Your task to perform on an android device: Go to Amazon Image 0: 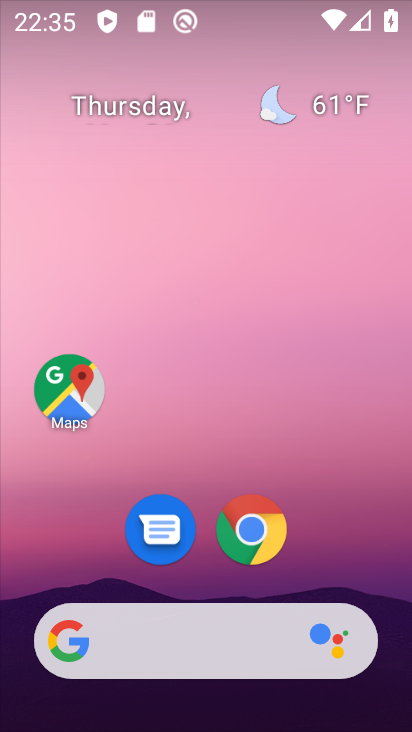
Step 0: click (242, 621)
Your task to perform on an android device: Go to Amazon Image 1: 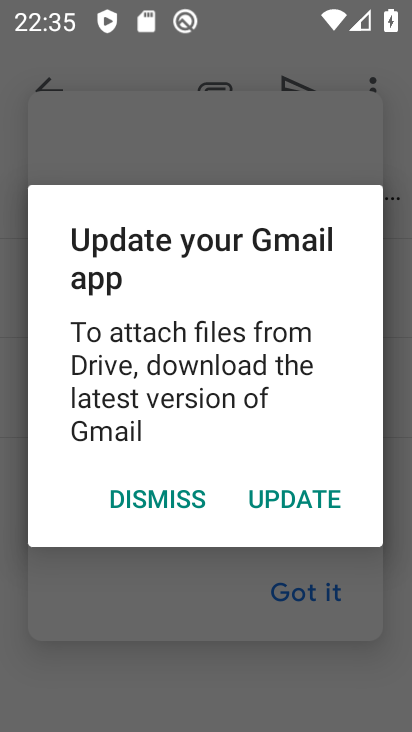
Step 1: click (190, 495)
Your task to perform on an android device: Go to Amazon Image 2: 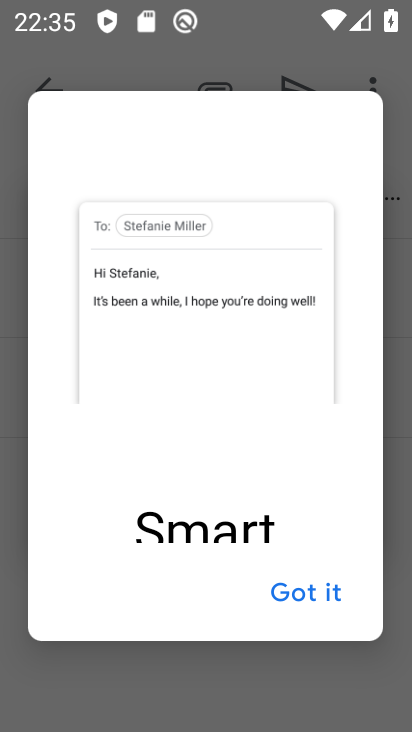
Step 2: click (307, 608)
Your task to perform on an android device: Go to Amazon Image 3: 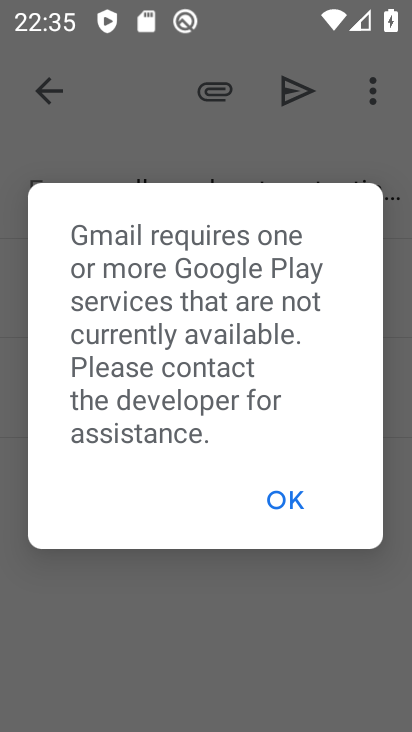
Step 3: click (283, 505)
Your task to perform on an android device: Go to Amazon Image 4: 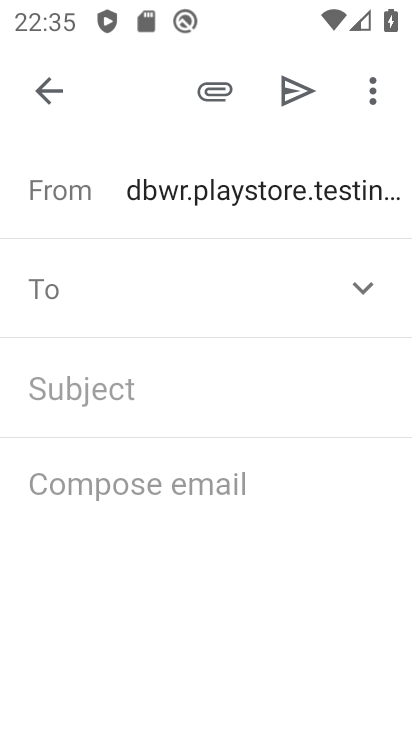
Step 4: press home button
Your task to perform on an android device: Go to Amazon Image 5: 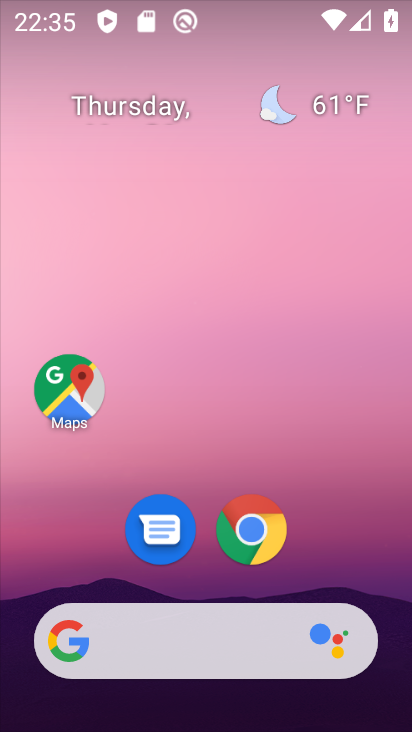
Step 5: click (198, 644)
Your task to perform on an android device: Go to Amazon Image 6: 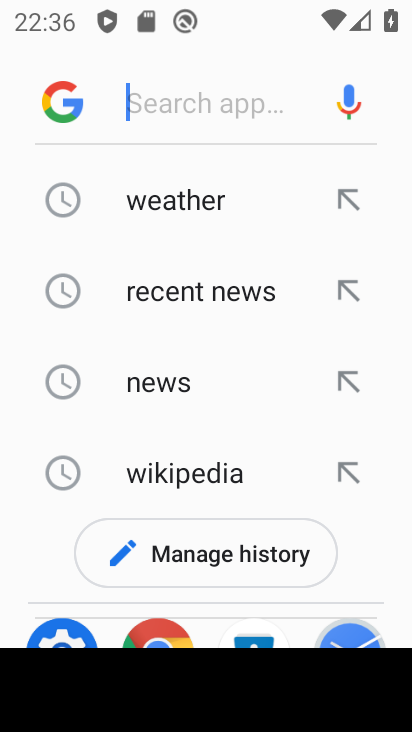
Step 6: type "amazon"
Your task to perform on an android device: Go to Amazon Image 7: 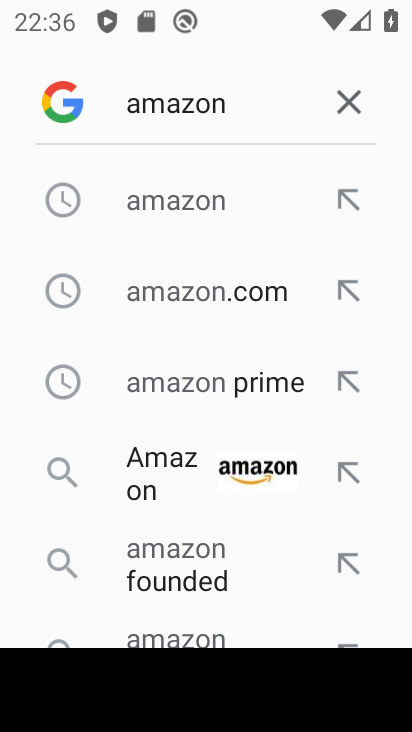
Step 7: click (176, 196)
Your task to perform on an android device: Go to Amazon Image 8: 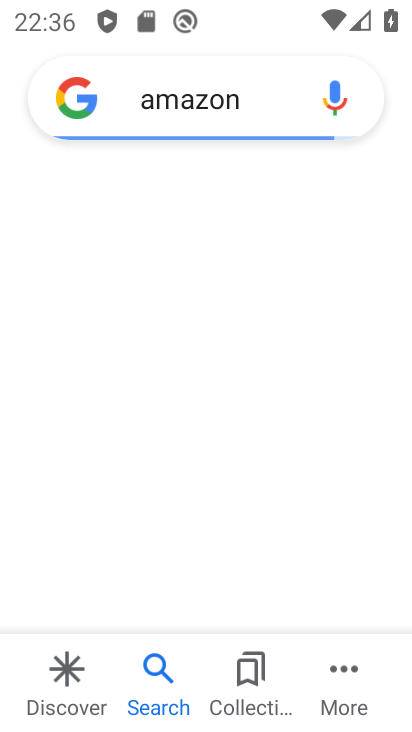
Step 8: task complete